Your task to perform on an android device: find photos in the google photos app Image 0: 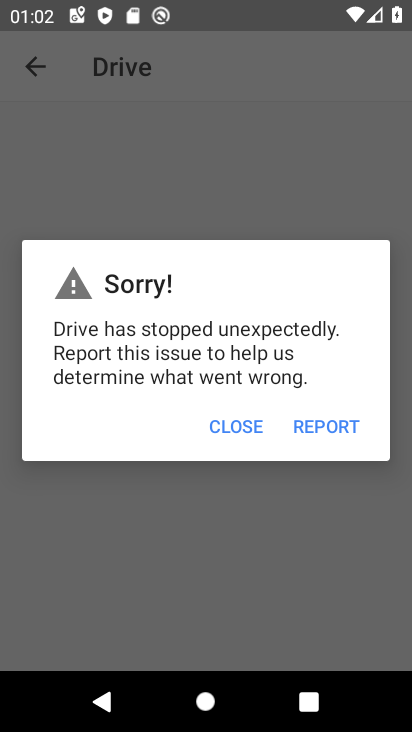
Step 0: press home button
Your task to perform on an android device: find photos in the google photos app Image 1: 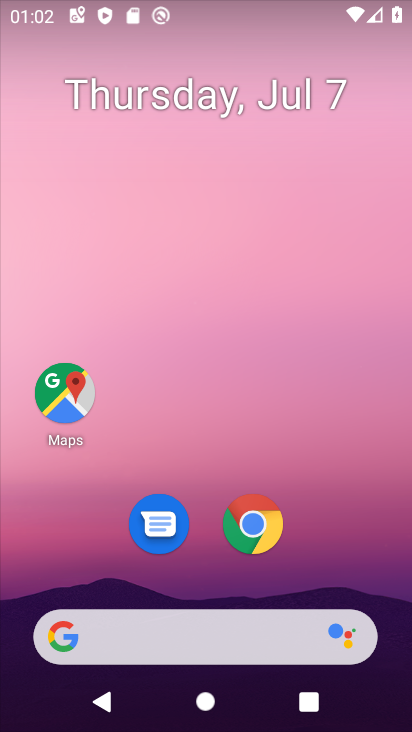
Step 1: drag from (303, 531) to (349, 50)
Your task to perform on an android device: find photos in the google photos app Image 2: 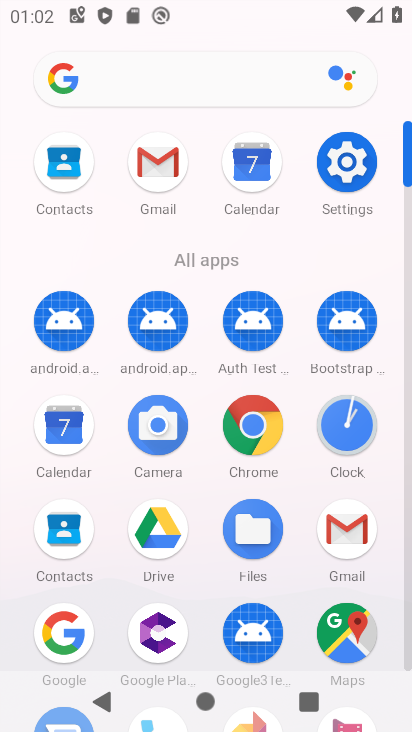
Step 2: drag from (200, 591) to (236, 363)
Your task to perform on an android device: find photos in the google photos app Image 3: 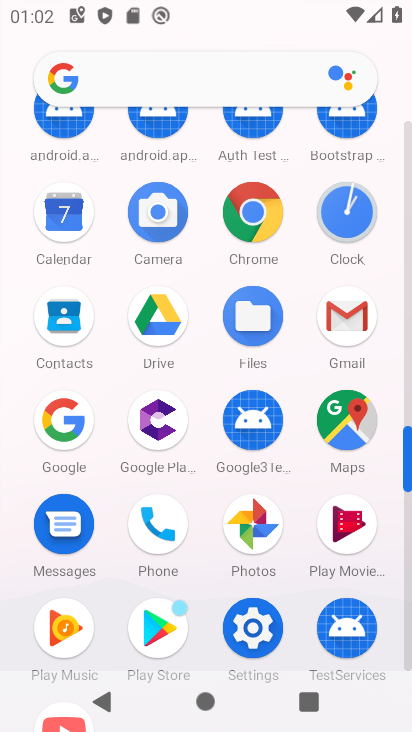
Step 3: click (250, 517)
Your task to perform on an android device: find photos in the google photos app Image 4: 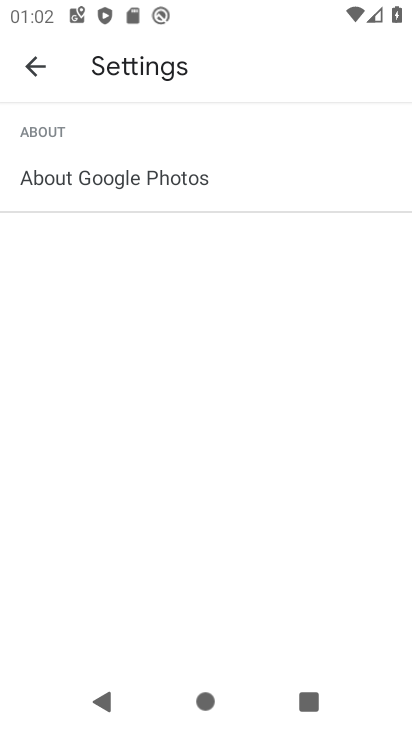
Step 4: click (31, 59)
Your task to perform on an android device: find photos in the google photos app Image 5: 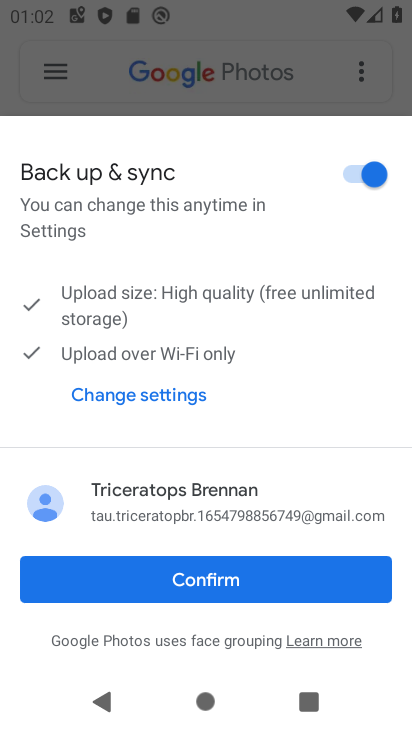
Step 5: click (260, 579)
Your task to perform on an android device: find photos in the google photos app Image 6: 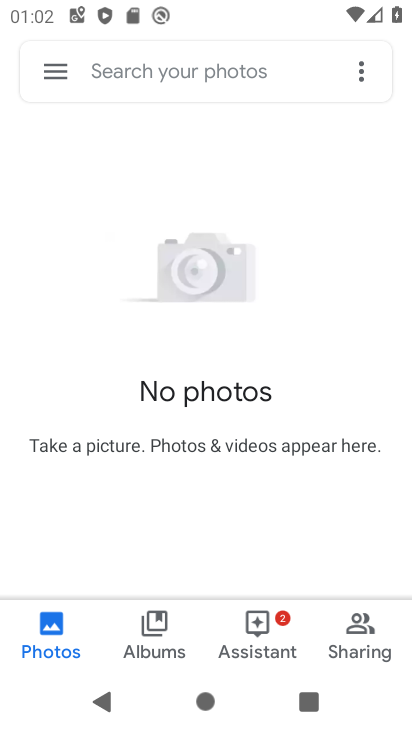
Step 6: task complete